Your task to perform on an android device: Open the stopwatch Image 0: 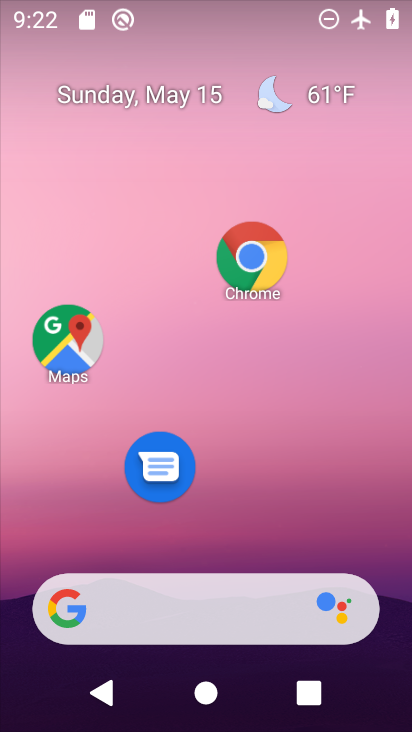
Step 0: drag from (222, 529) to (284, 122)
Your task to perform on an android device: Open the stopwatch Image 1: 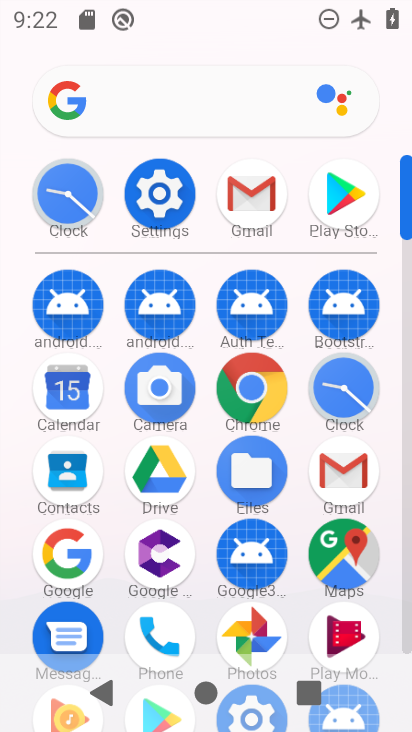
Step 1: click (74, 204)
Your task to perform on an android device: Open the stopwatch Image 2: 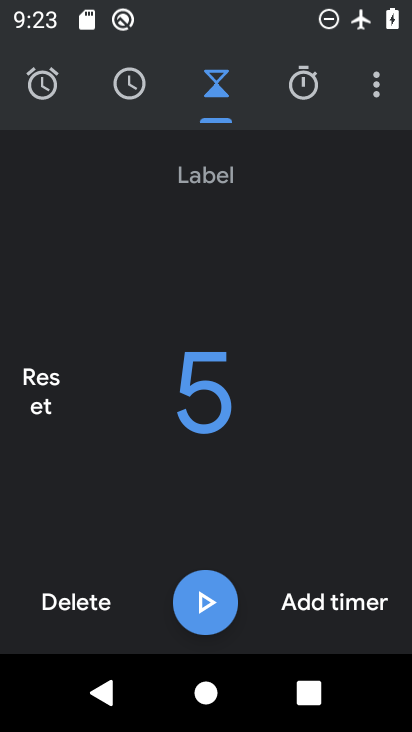
Step 2: click (331, 77)
Your task to perform on an android device: Open the stopwatch Image 3: 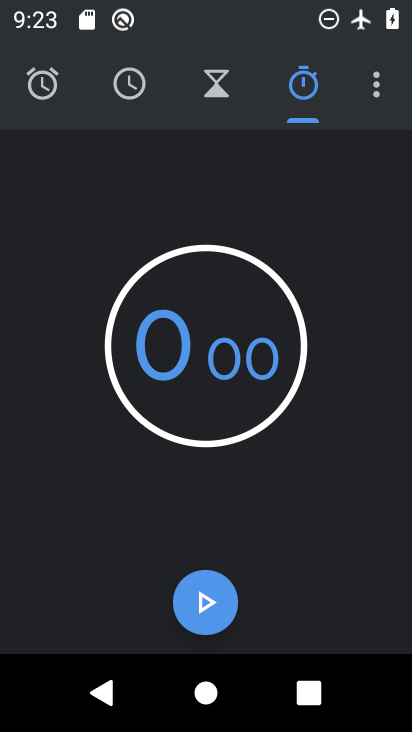
Step 3: task complete